Your task to perform on an android device: change text size in settings app Image 0: 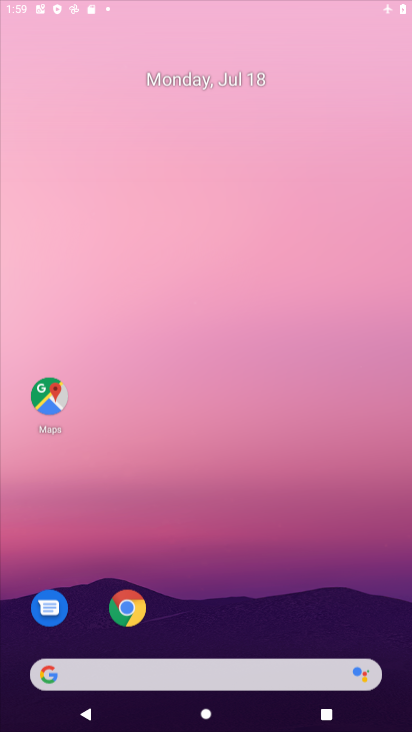
Step 0: drag from (380, 637) to (198, 47)
Your task to perform on an android device: change text size in settings app Image 1: 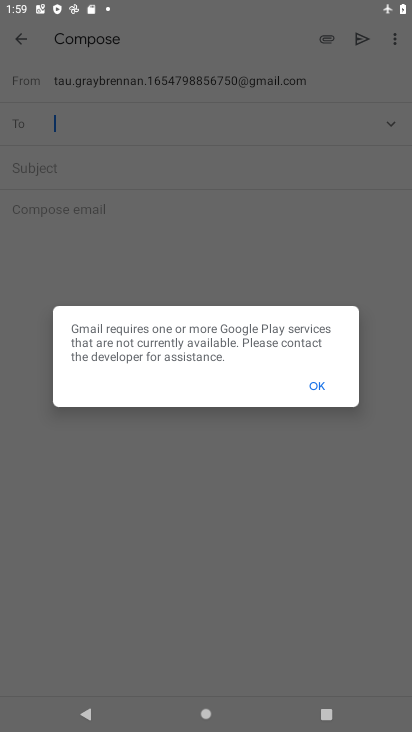
Step 1: press home button
Your task to perform on an android device: change text size in settings app Image 2: 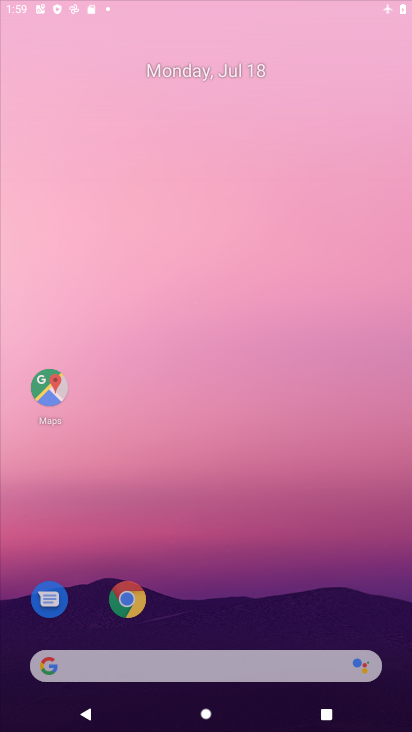
Step 2: drag from (386, 699) to (206, 65)
Your task to perform on an android device: change text size in settings app Image 3: 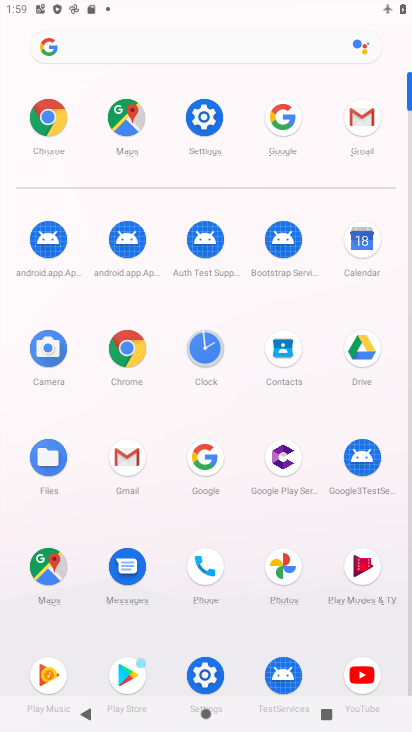
Step 3: click (195, 673)
Your task to perform on an android device: change text size in settings app Image 4: 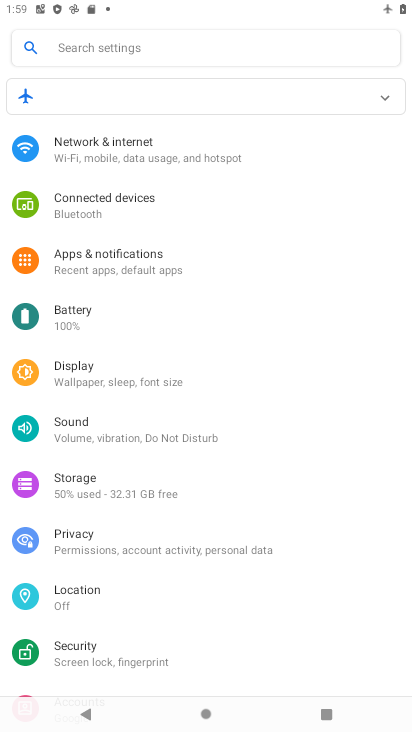
Step 4: click (83, 372)
Your task to perform on an android device: change text size in settings app Image 5: 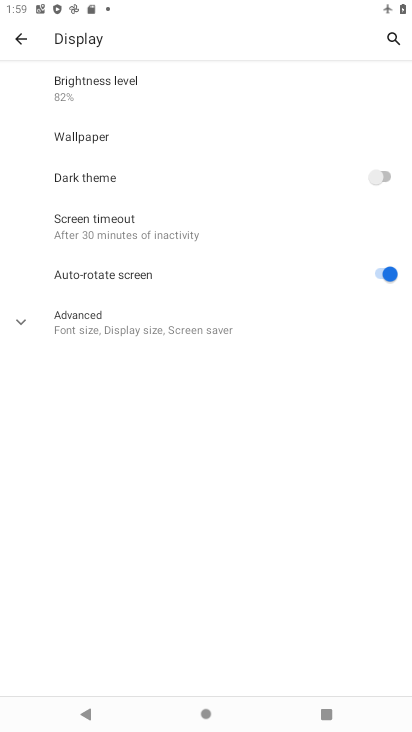
Step 5: click (101, 311)
Your task to perform on an android device: change text size in settings app Image 6: 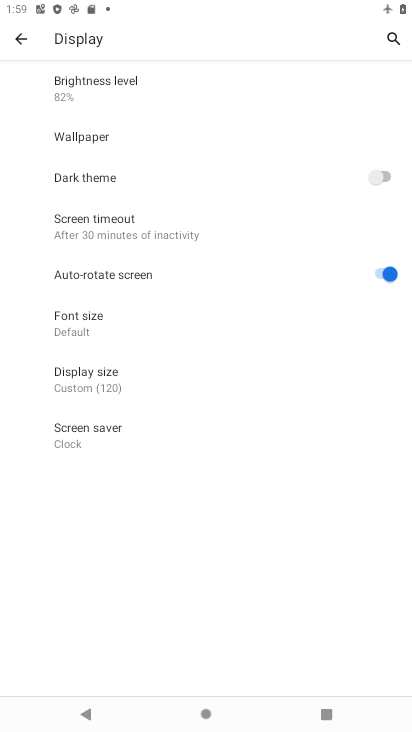
Step 6: click (116, 320)
Your task to perform on an android device: change text size in settings app Image 7: 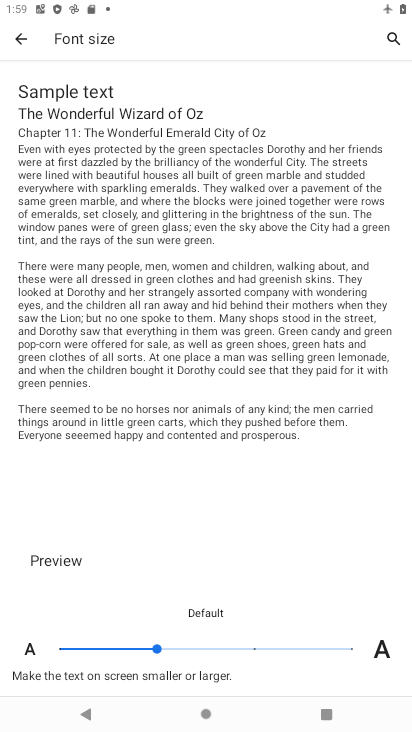
Step 7: click (353, 642)
Your task to perform on an android device: change text size in settings app Image 8: 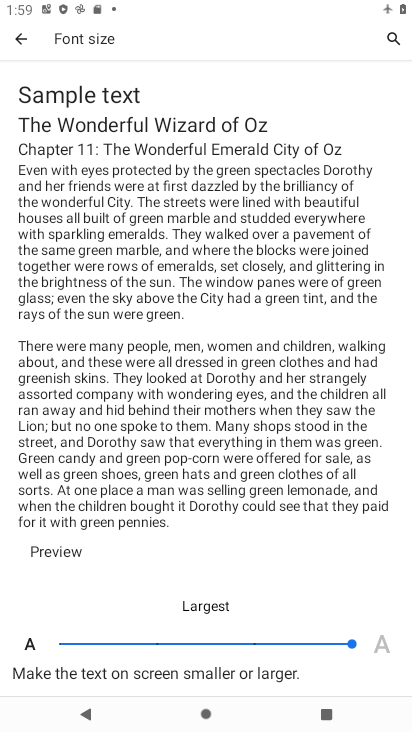
Step 8: task complete